Your task to perform on an android device: turn off wifi Image 0: 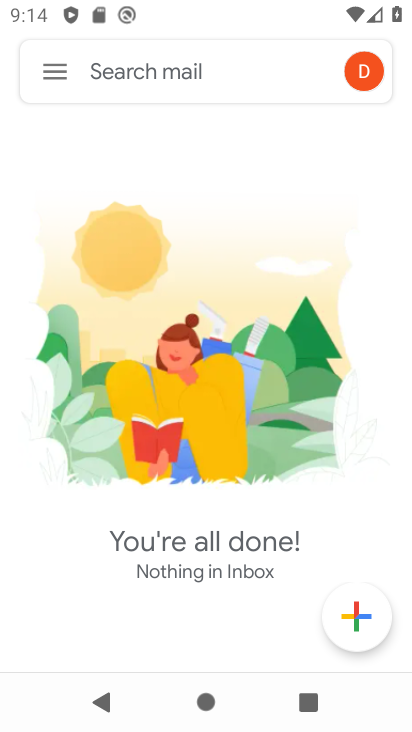
Step 0: press home button
Your task to perform on an android device: turn off wifi Image 1: 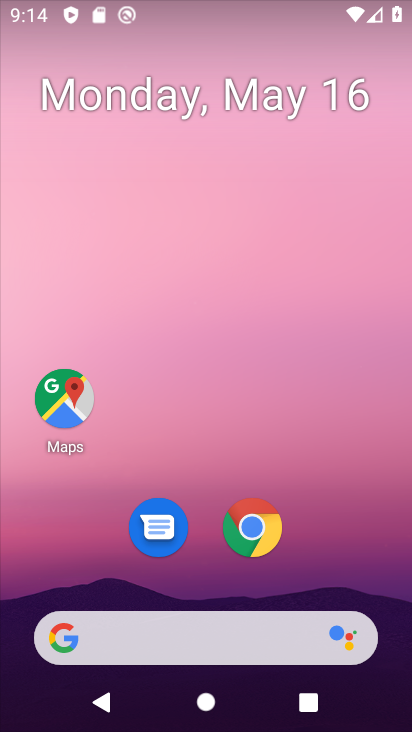
Step 1: drag from (362, 583) to (321, 14)
Your task to perform on an android device: turn off wifi Image 2: 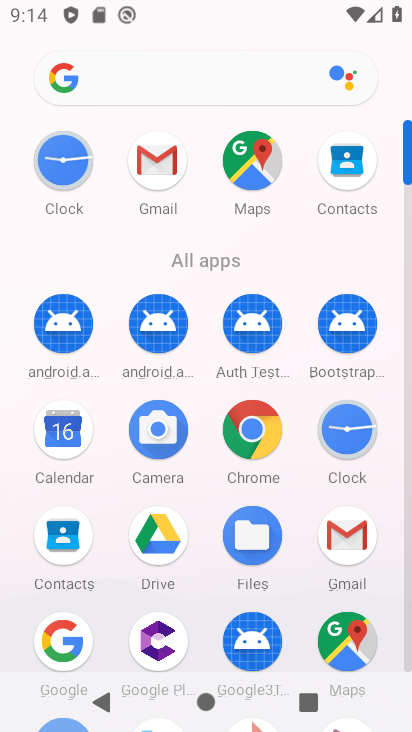
Step 2: click (408, 535)
Your task to perform on an android device: turn off wifi Image 3: 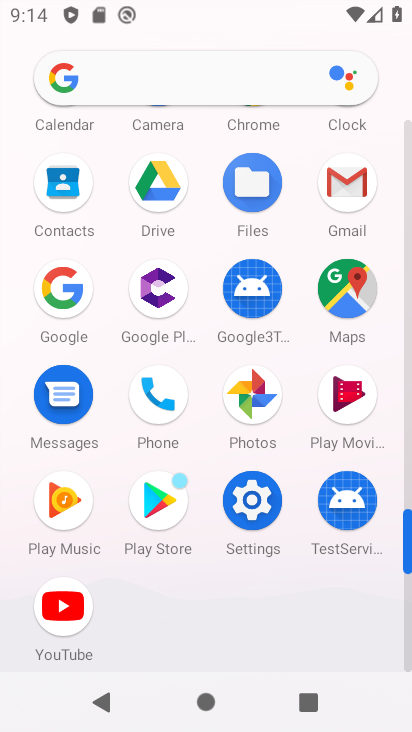
Step 3: click (242, 507)
Your task to perform on an android device: turn off wifi Image 4: 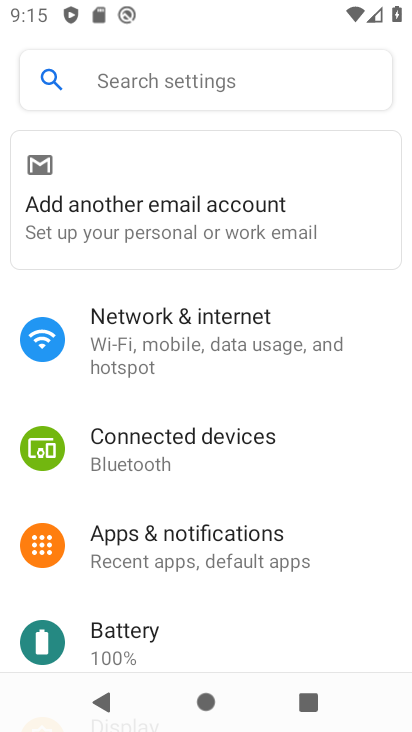
Step 4: click (172, 322)
Your task to perform on an android device: turn off wifi Image 5: 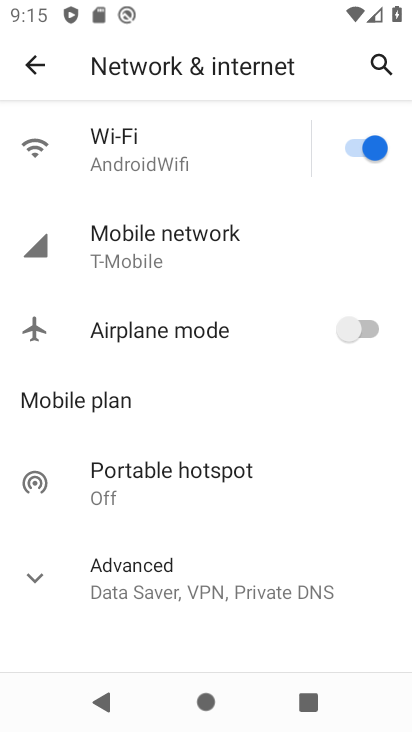
Step 5: click (381, 160)
Your task to perform on an android device: turn off wifi Image 6: 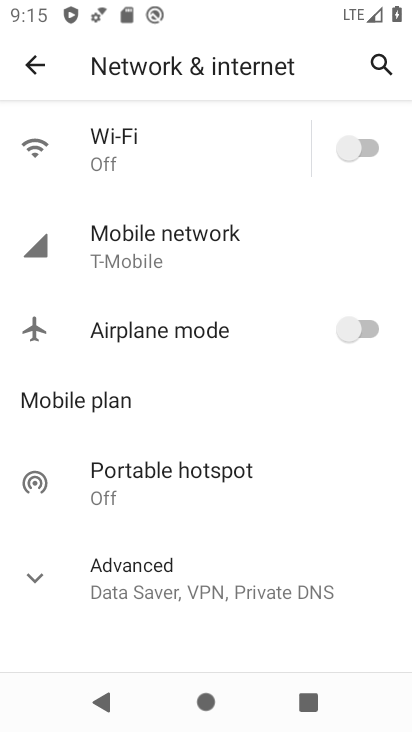
Step 6: task complete